Your task to perform on an android device: turn vacation reply on in the gmail app Image 0: 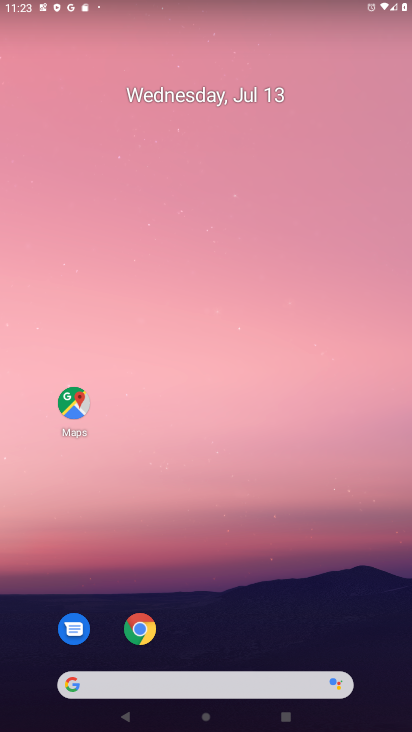
Step 0: click (258, 655)
Your task to perform on an android device: turn vacation reply on in the gmail app Image 1: 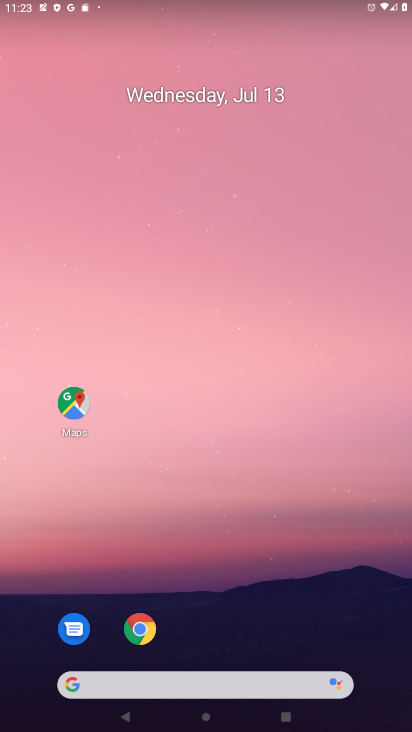
Step 1: drag from (258, 655) to (222, 338)
Your task to perform on an android device: turn vacation reply on in the gmail app Image 2: 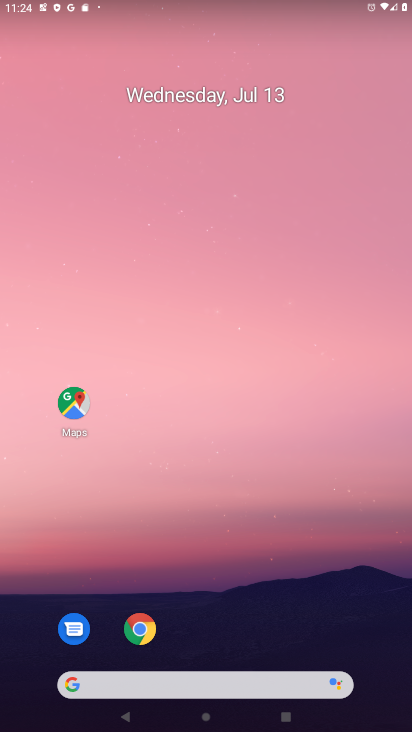
Step 2: drag from (322, 628) to (273, 203)
Your task to perform on an android device: turn vacation reply on in the gmail app Image 3: 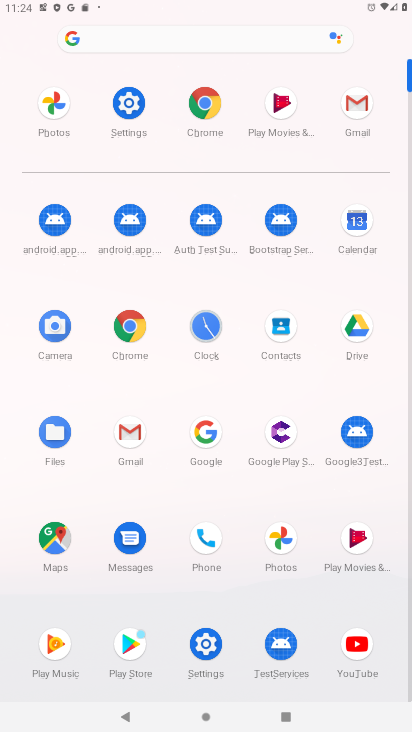
Step 3: click (367, 112)
Your task to perform on an android device: turn vacation reply on in the gmail app Image 4: 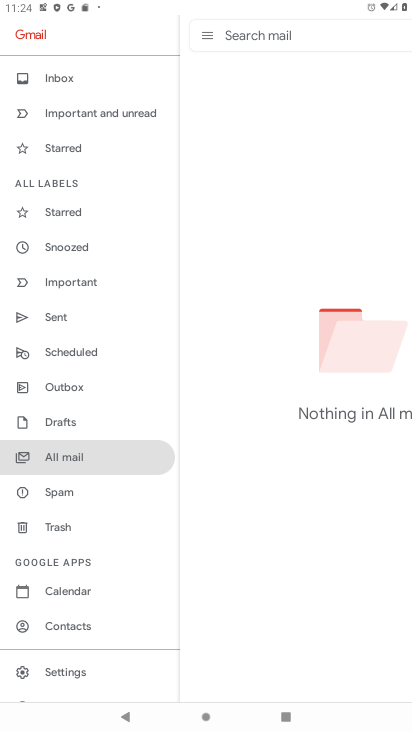
Step 4: click (77, 660)
Your task to perform on an android device: turn vacation reply on in the gmail app Image 5: 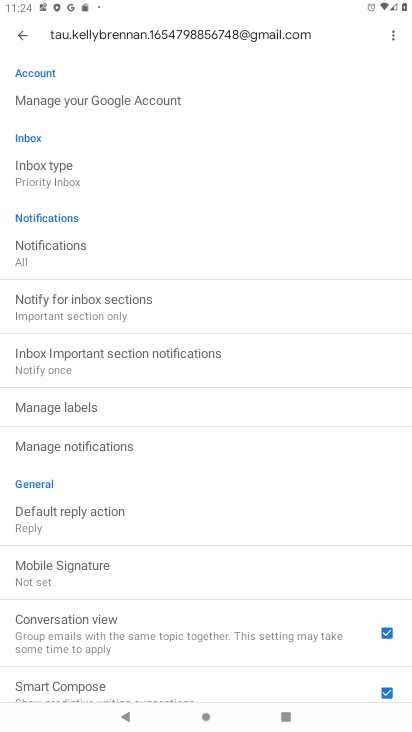
Step 5: drag from (144, 616) to (150, 432)
Your task to perform on an android device: turn vacation reply on in the gmail app Image 6: 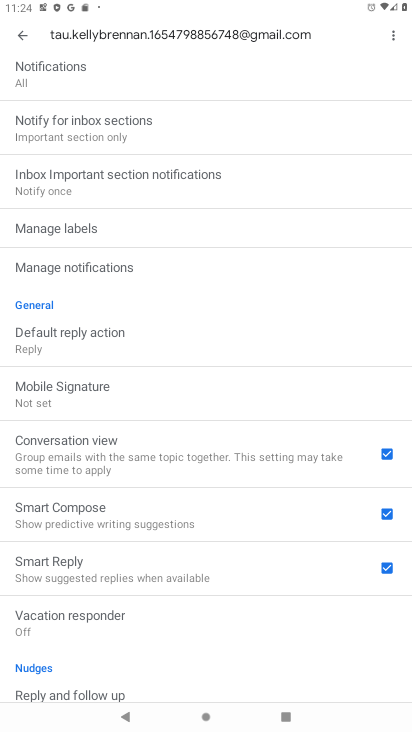
Step 6: drag from (166, 605) to (180, 428)
Your task to perform on an android device: turn vacation reply on in the gmail app Image 7: 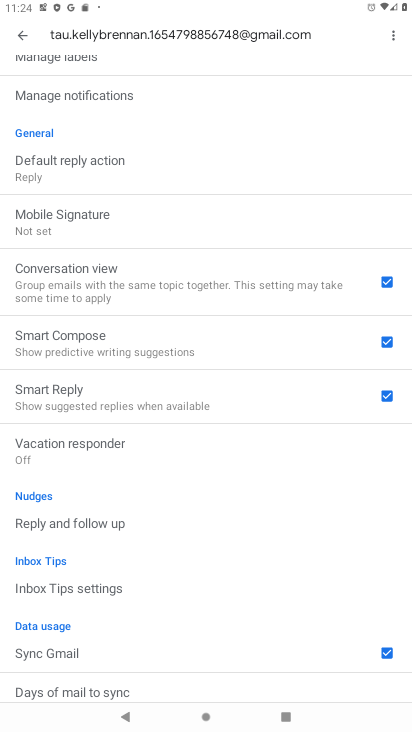
Step 7: click (201, 453)
Your task to perform on an android device: turn vacation reply on in the gmail app Image 8: 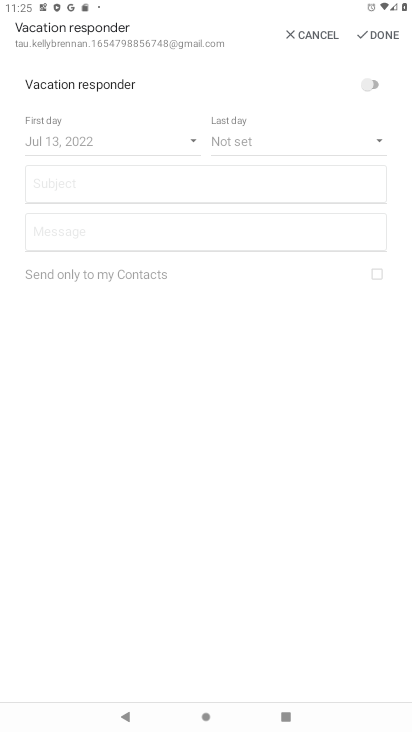
Step 8: click (394, 35)
Your task to perform on an android device: turn vacation reply on in the gmail app Image 9: 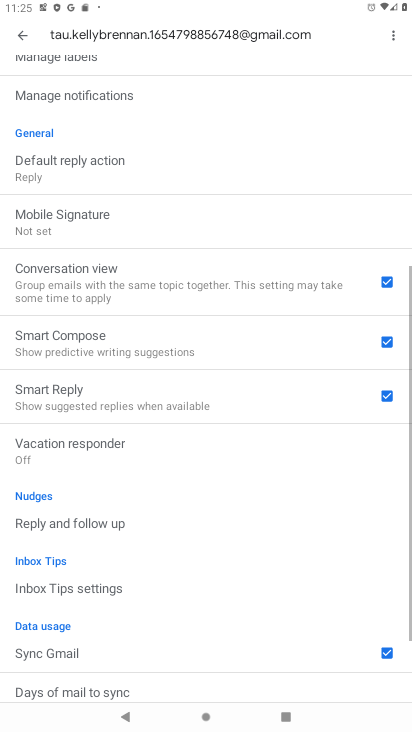
Step 9: task complete